Your task to perform on an android device: Open Chrome and go to settings Image 0: 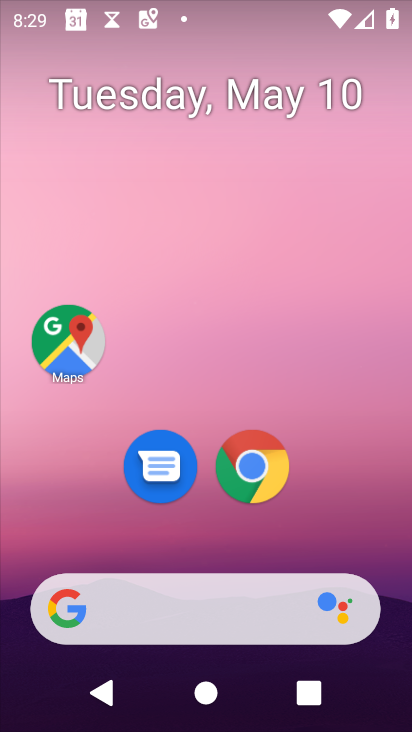
Step 0: drag from (305, 537) to (317, 6)
Your task to perform on an android device: Open Chrome and go to settings Image 1: 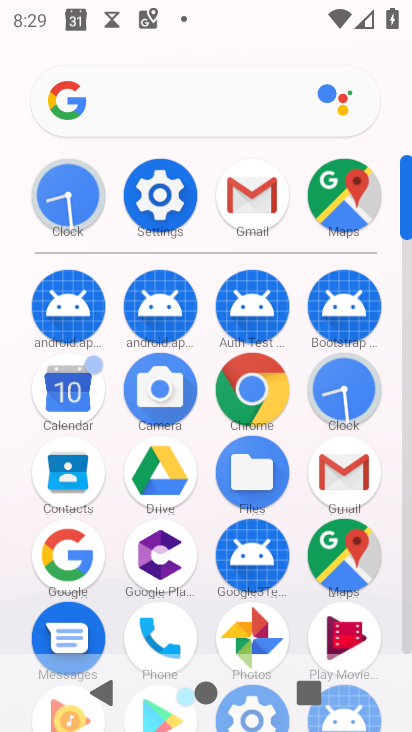
Step 1: click (267, 392)
Your task to perform on an android device: Open Chrome and go to settings Image 2: 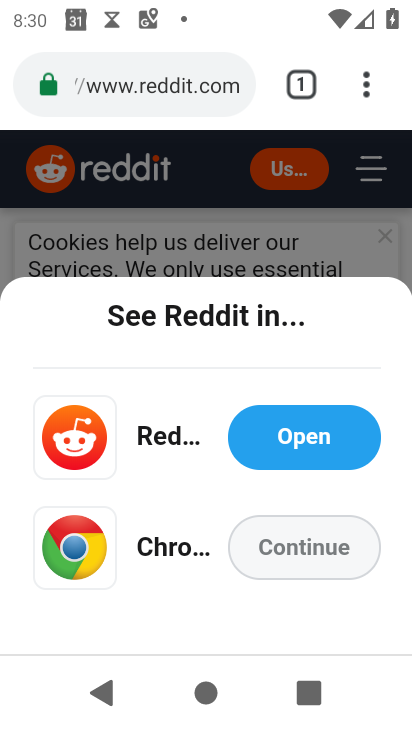
Step 2: click (365, 97)
Your task to perform on an android device: Open Chrome and go to settings Image 3: 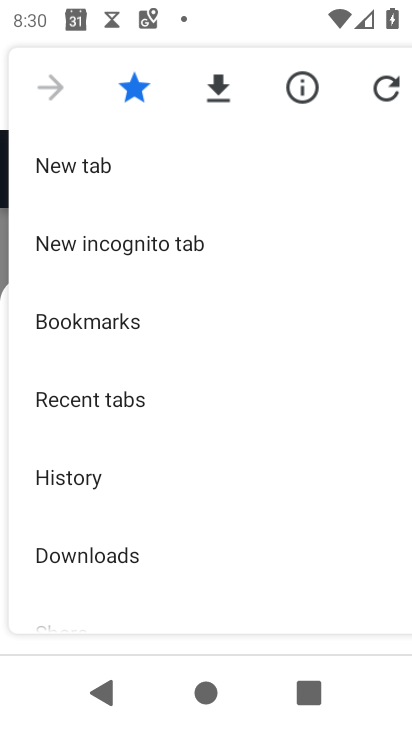
Step 3: drag from (98, 569) to (101, 303)
Your task to perform on an android device: Open Chrome and go to settings Image 4: 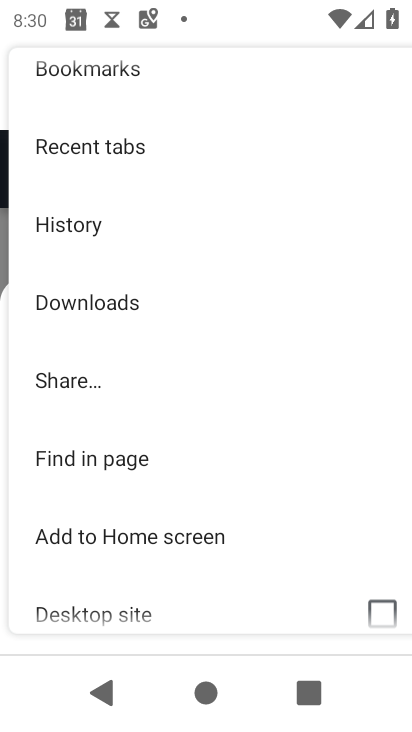
Step 4: drag from (126, 580) to (110, 302)
Your task to perform on an android device: Open Chrome and go to settings Image 5: 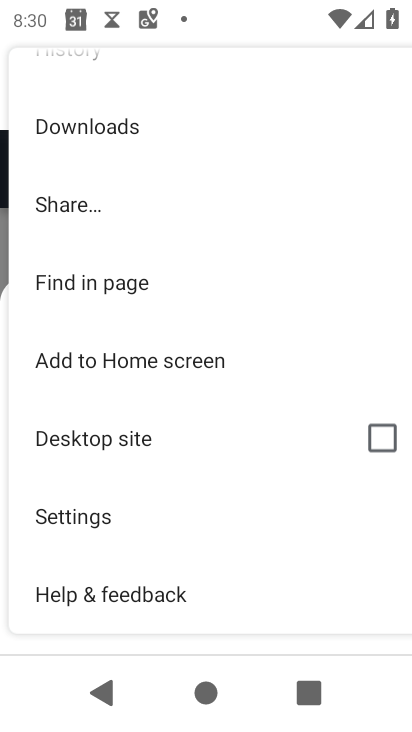
Step 5: click (109, 506)
Your task to perform on an android device: Open Chrome and go to settings Image 6: 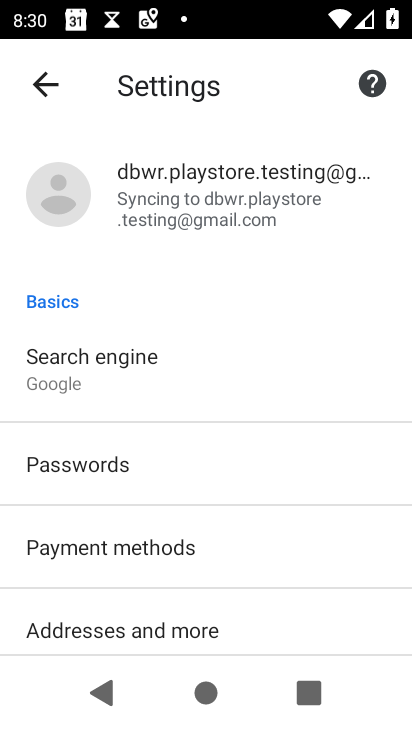
Step 6: task complete